Your task to perform on an android device: turn on javascript in the chrome app Image 0: 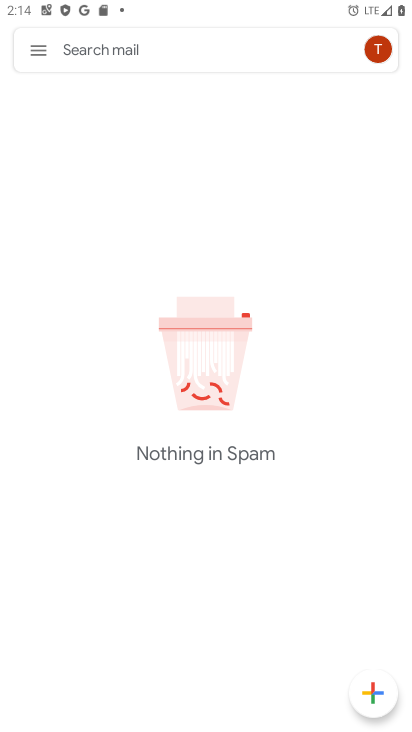
Step 0: press home button
Your task to perform on an android device: turn on javascript in the chrome app Image 1: 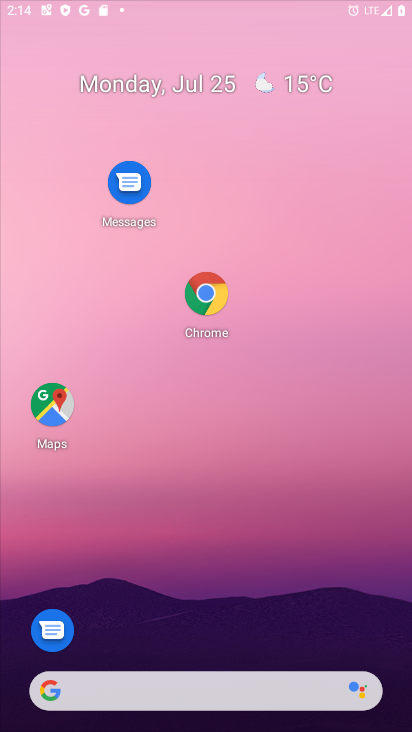
Step 1: drag from (59, 396) to (7, 56)
Your task to perform on an android device: turn on javascript in the chrome app Image 2: 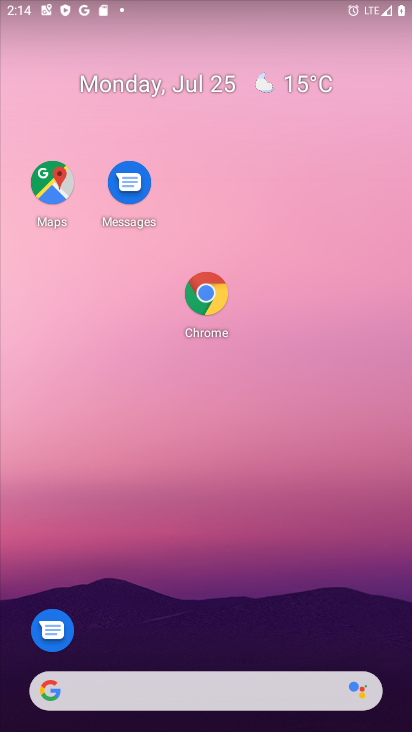
Step 2: click (192, 476)
Your task to perform on an android device: turn on javascript in the chrome app Image 3: 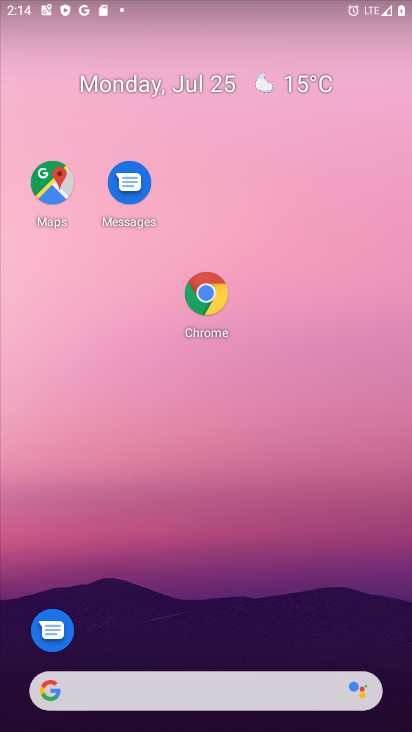
Step 3: click (204, 327)
Your task to perform on an android device: turn on javascript in the chrome app Image 4: 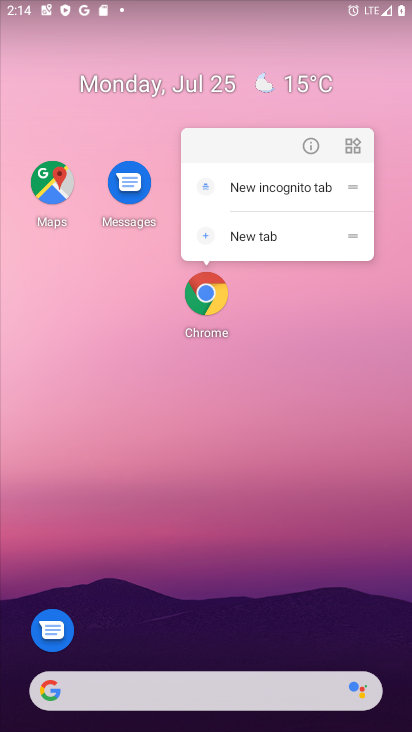
Step 4: click (199, 309)
Your task to perform on an android device: turn on javascript in the chrome app Image 5: 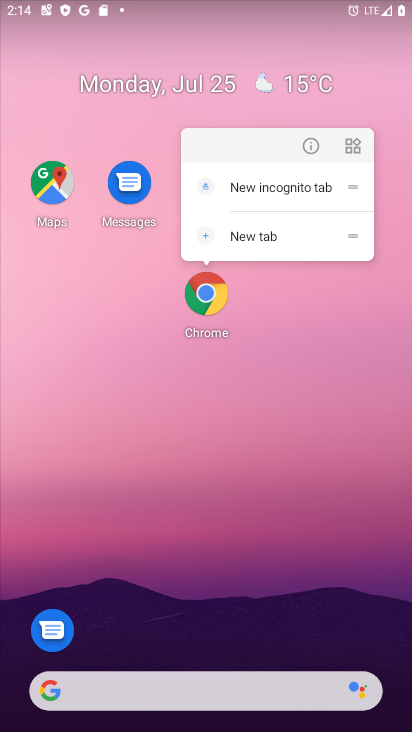
Step 5: click (199, 309)
Your task to perform on an android device: turn on javascript in the chrome app Image 6: 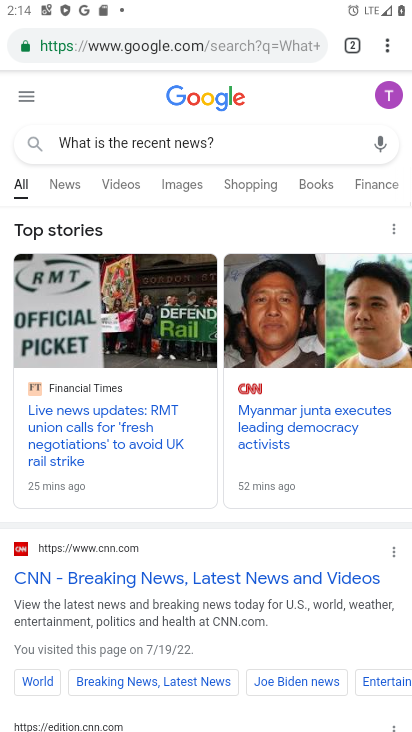
Step 6: drag from (392, 41) to (209, 548)
Your task to perform on an android device: turn on javascript in the chrome app Image 7: 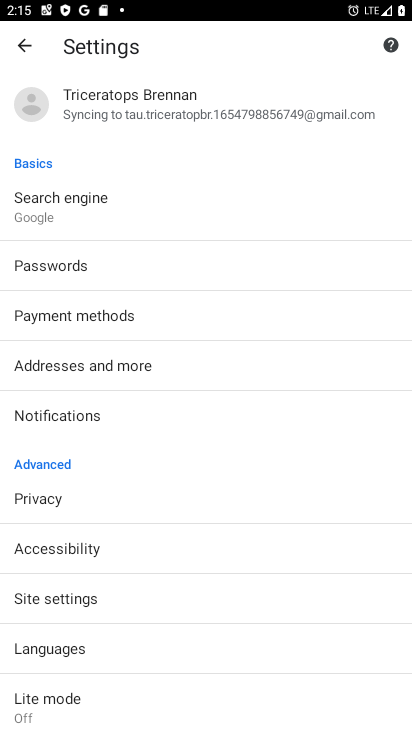
Step 7: click (33, 618)
Your task to perform on an android device: turn on javascript in the chrome app Image 8: 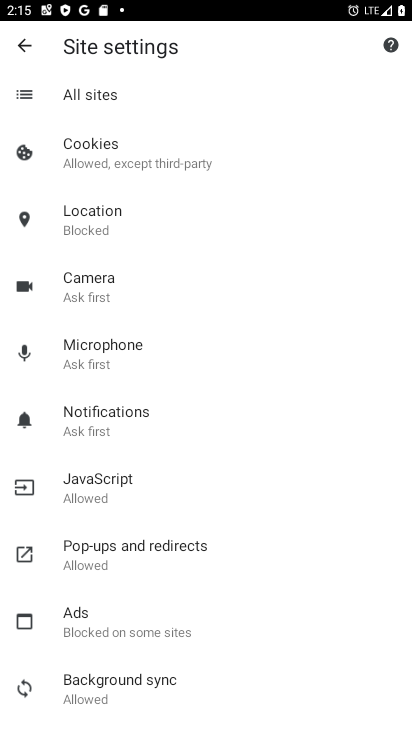
Step 8: click (75, 484)
Your task to perform on an android device: turn on javascript in the chrome app Image 9: 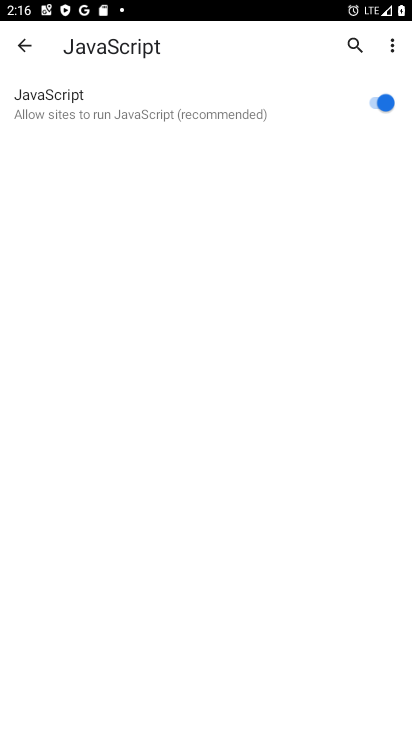
Step 9: task complete